Your task to perform on an android device: Search for the best selling vase on Crate & Barrel Image 0: 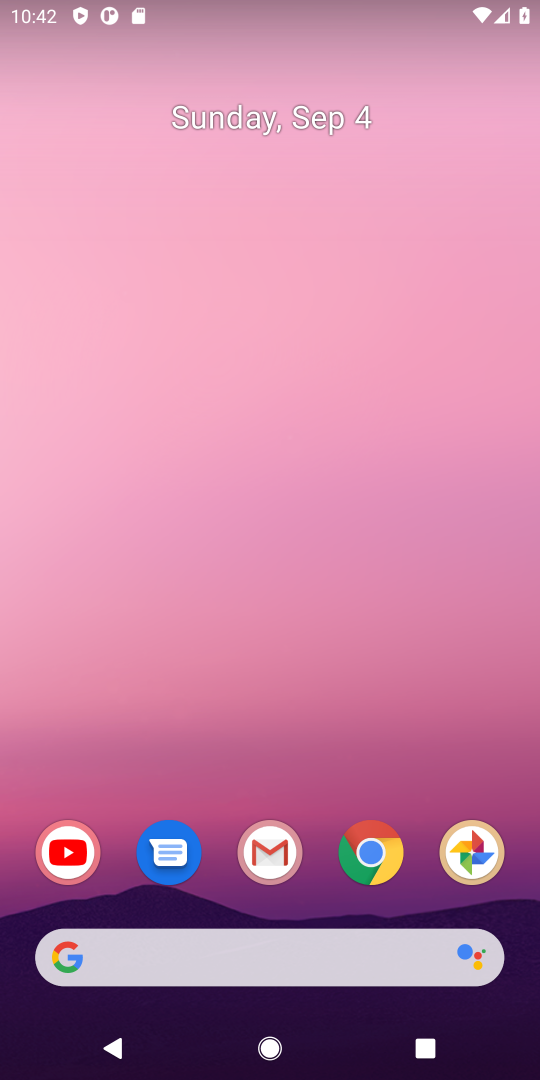
Step 0: drag from (415, 881) to (206, 0)
Your task to perform on an android device: Search for the best selling vase on Crate & Barrel Image 1: 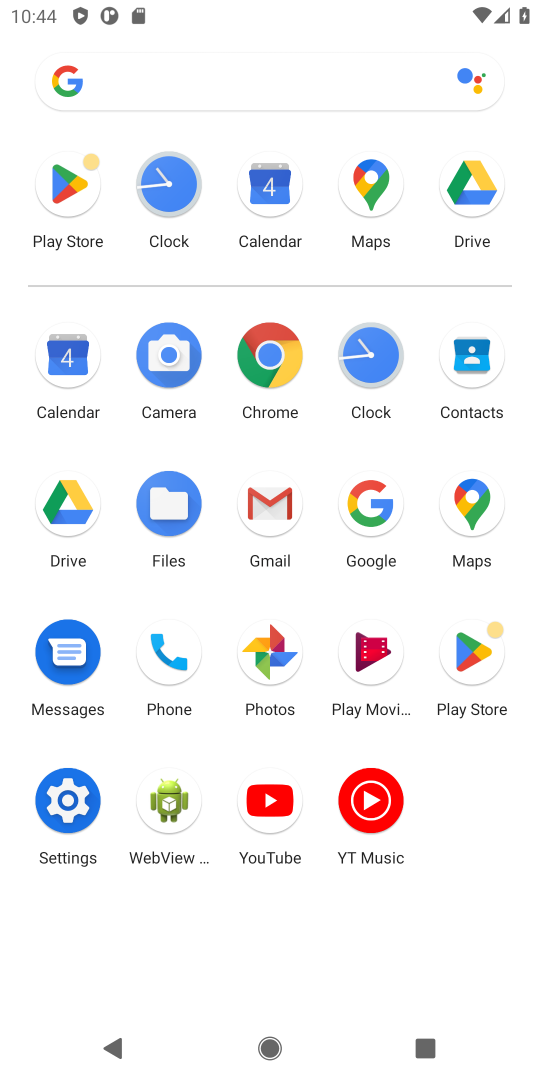
Step 1: click (372, 515)
Your task to perform on an android device: Search for the best selling vase on Crate & Barrel Image 2: 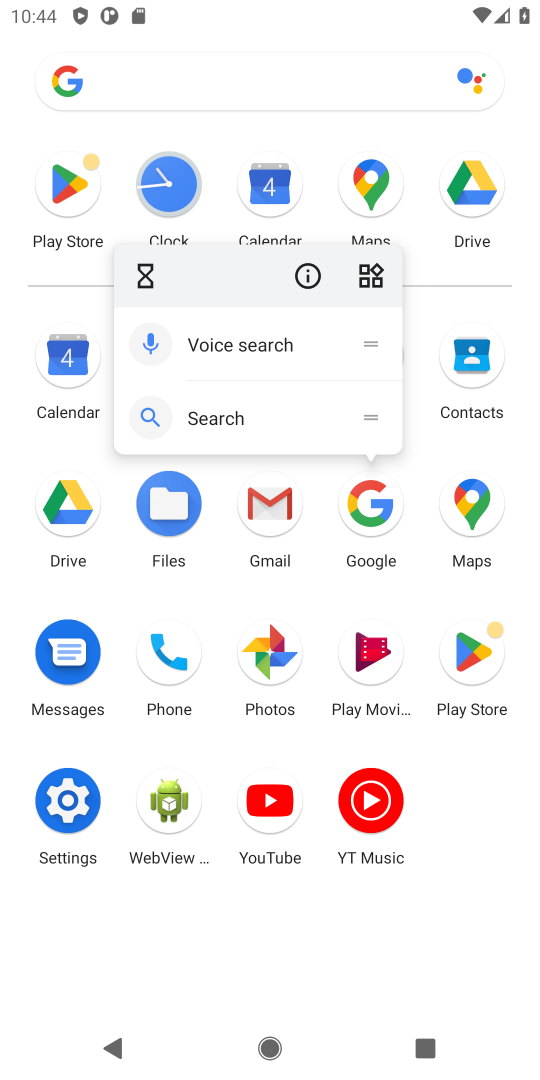
Step 2: click (388, 503)
Your task to perform on an android device: Search for the best selling vase on Crate & Barrel Image 3: 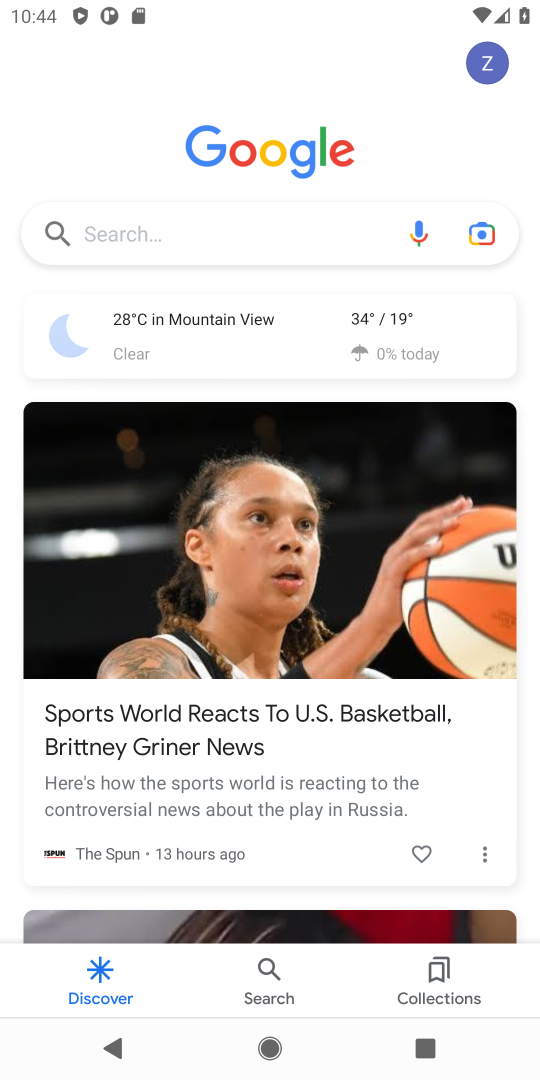
Step 3: click (195, 226)
Your task to perform on an android device: Search for the best selling vase on Crate & Barrel Image 4: 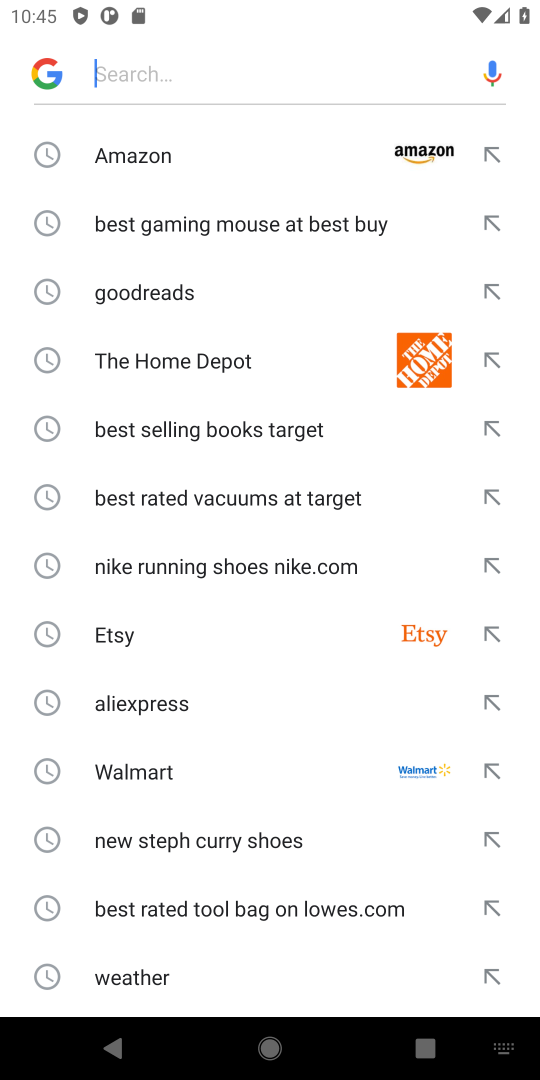
Step 4: type "best selling vase on Crate & Barrel"
Your task to perform on an android device: Search for the best selling vase on Crate & Barrel Image 5: 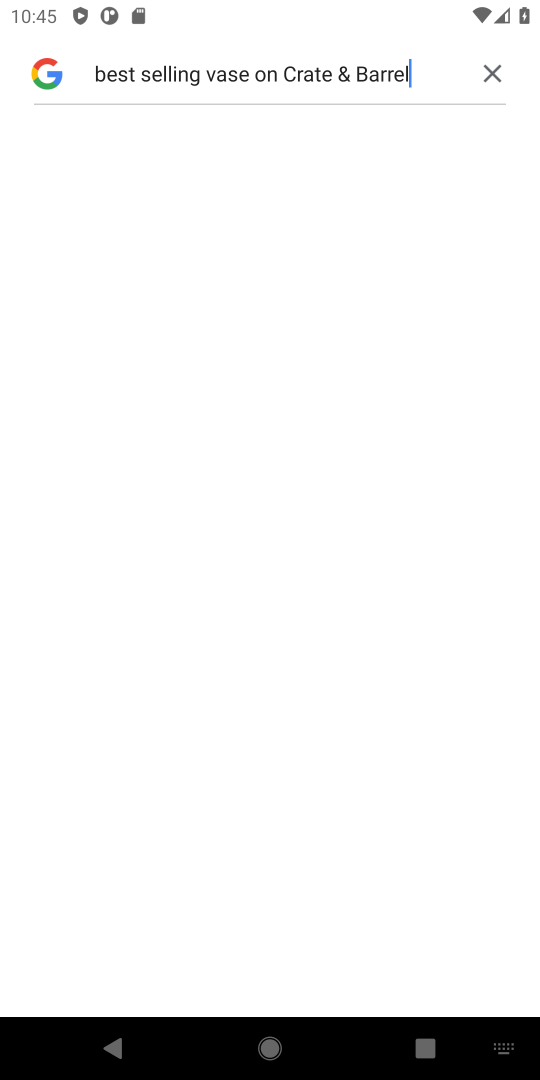
Step 5: task complete